Your task to perform on an android device: search for starred emails in the gmail app Image 0: 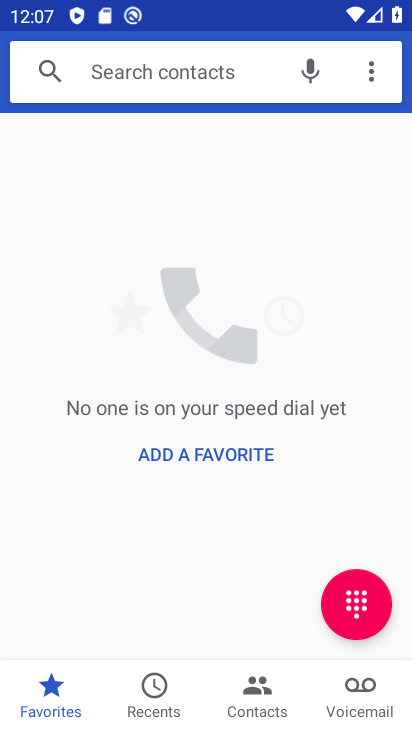
Step 0: press home button
Your task to perform on an android device: search for starred emails in the gmail app Image 1: 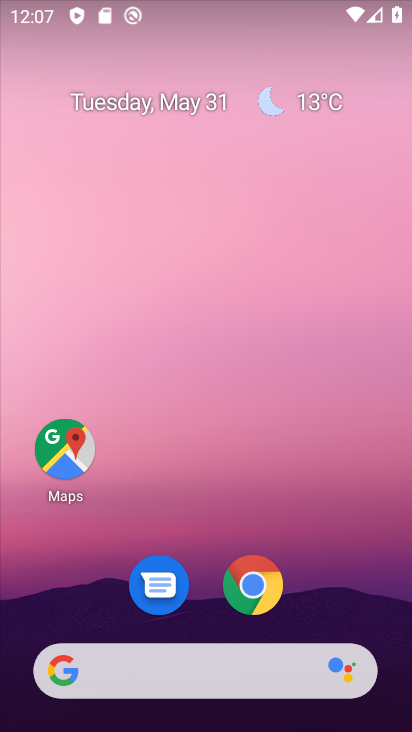
Step 1: drag from (211, 525) to (243, 66)
Your task to perform on an android device: search for starred emails in the gmail app Image 2: 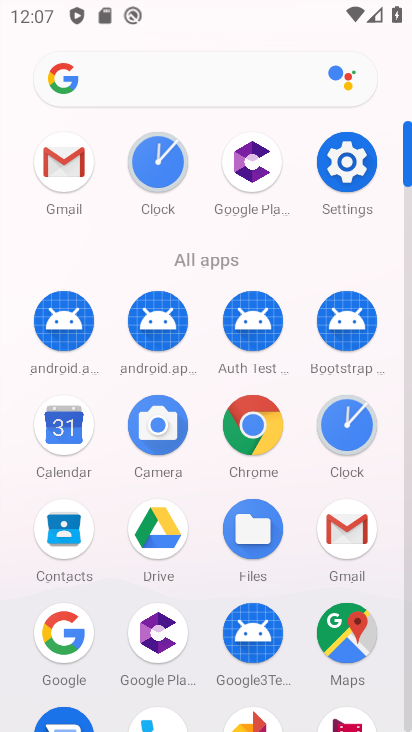
Step 2: click (65, 170)
Your task to perform on an android device: search for starred emails in the gmail app Image 3: 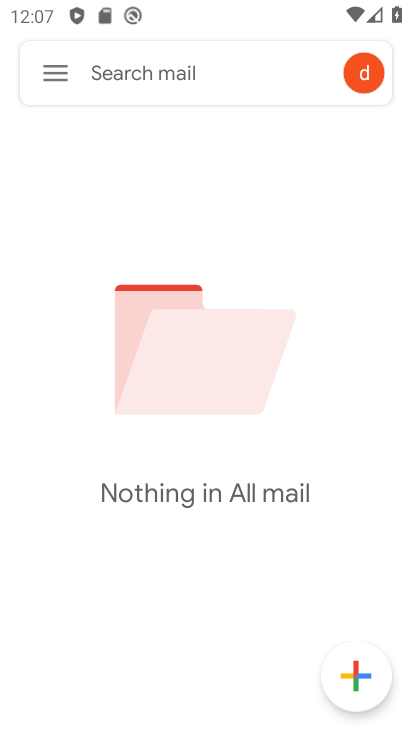
Step 3: click (57, 77)
Your task to perform on an android device: search for starred emails in the gmail app Image 4: 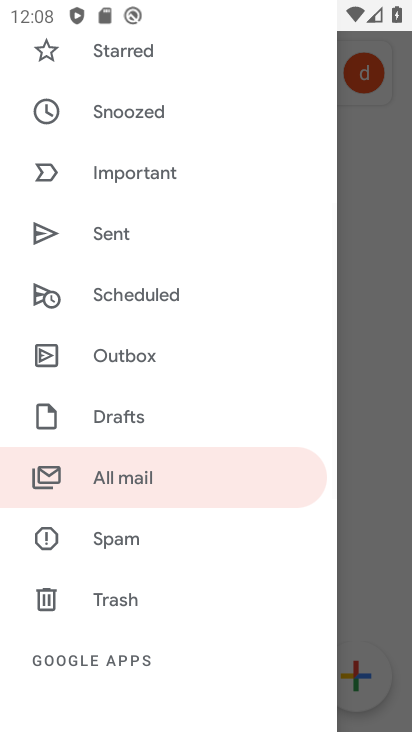
Step 4: drag from (172, 204) to (176, 445)
Your task to perform on an android device: search for starred emails in the gmail app Image 5: 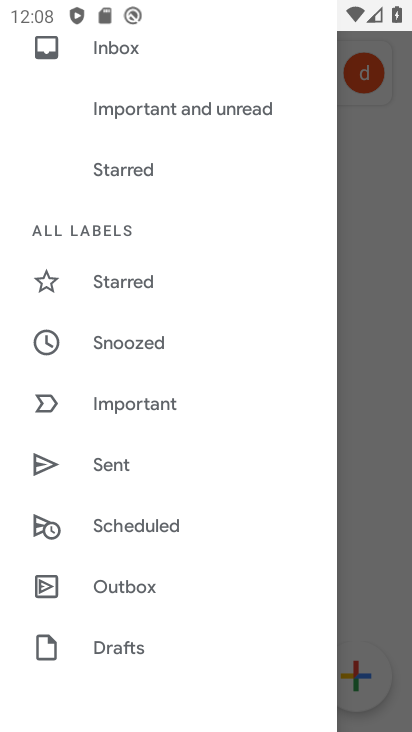
Step 5: click (150, 281)
Your task to perform on an android device: search for starred emails in the gmail app Image 6: 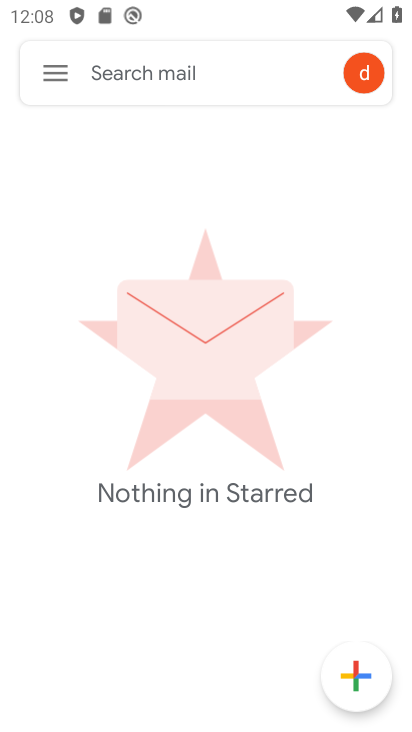
Step 6: task complete